Your task to perform on an android device: Do I have any events today? Image 0: 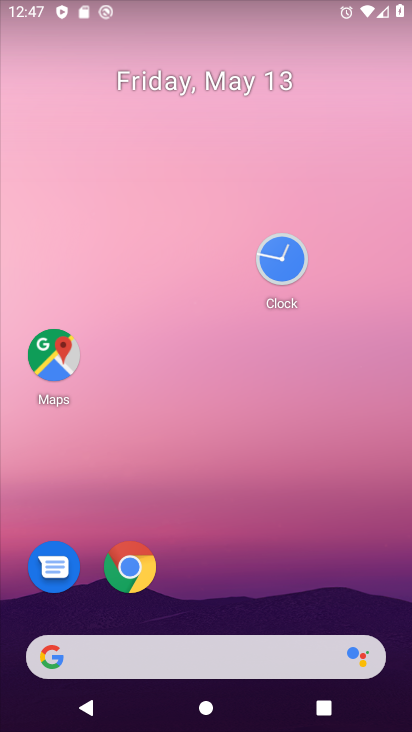
Step 0: drag from (339, 602) to (306, 42)
Your task to perform on an android device: Do I have any events today? Image 1: 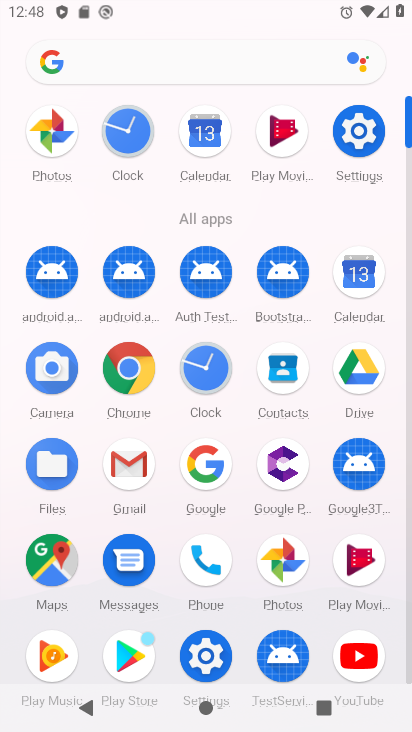
Step 1: click (374, 292)
Your task to perform on an android device: Do I have any events today? Image 2: 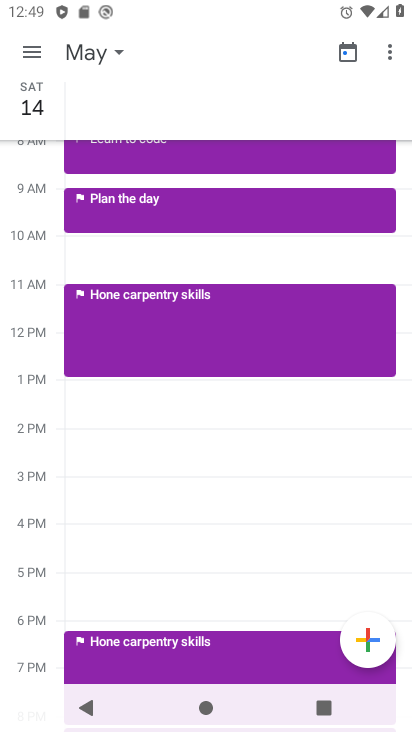
Step 2: task complete